Your task to perform on an android device: open a new tab in the chrome app Image 0: 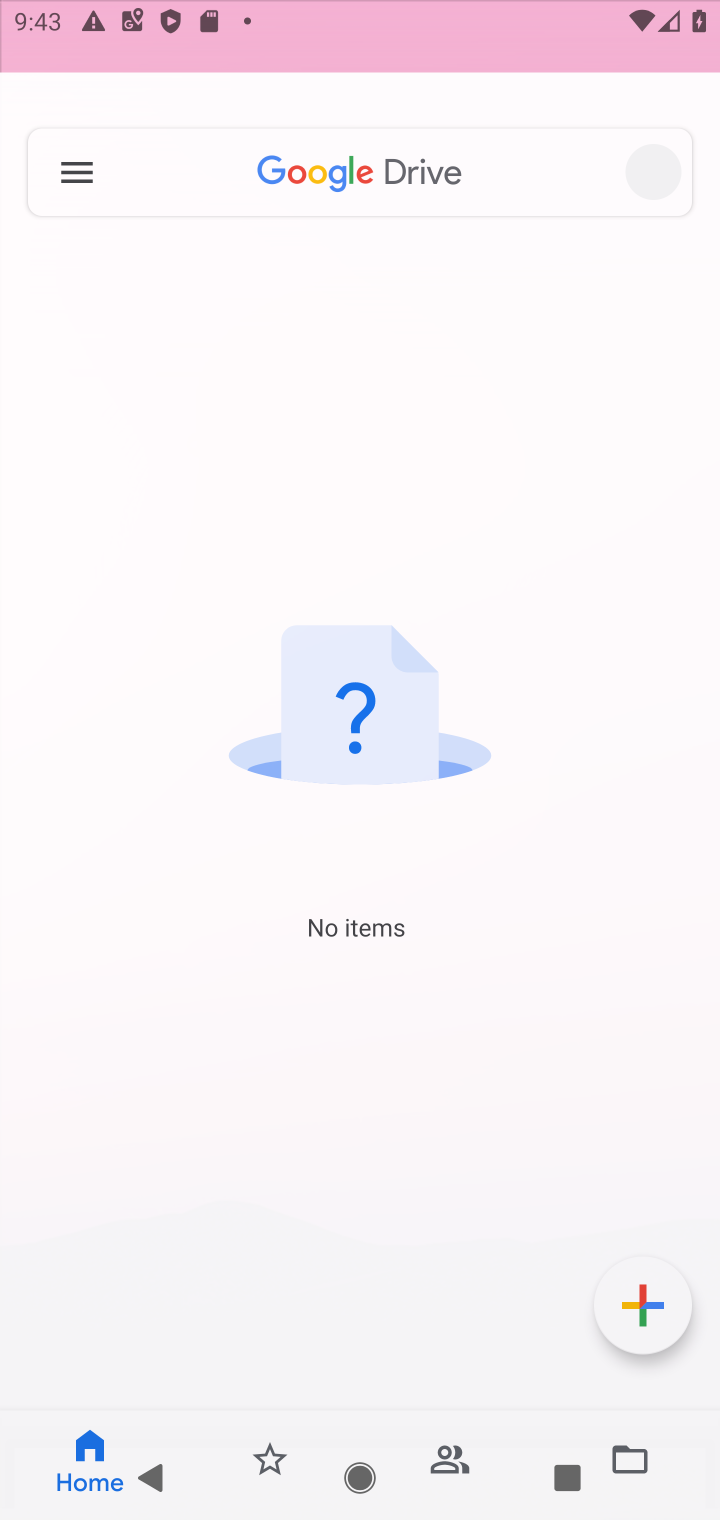
Step 0: press home button
Your task to perform on an android device: open a new tab in the chrome app Image 1: 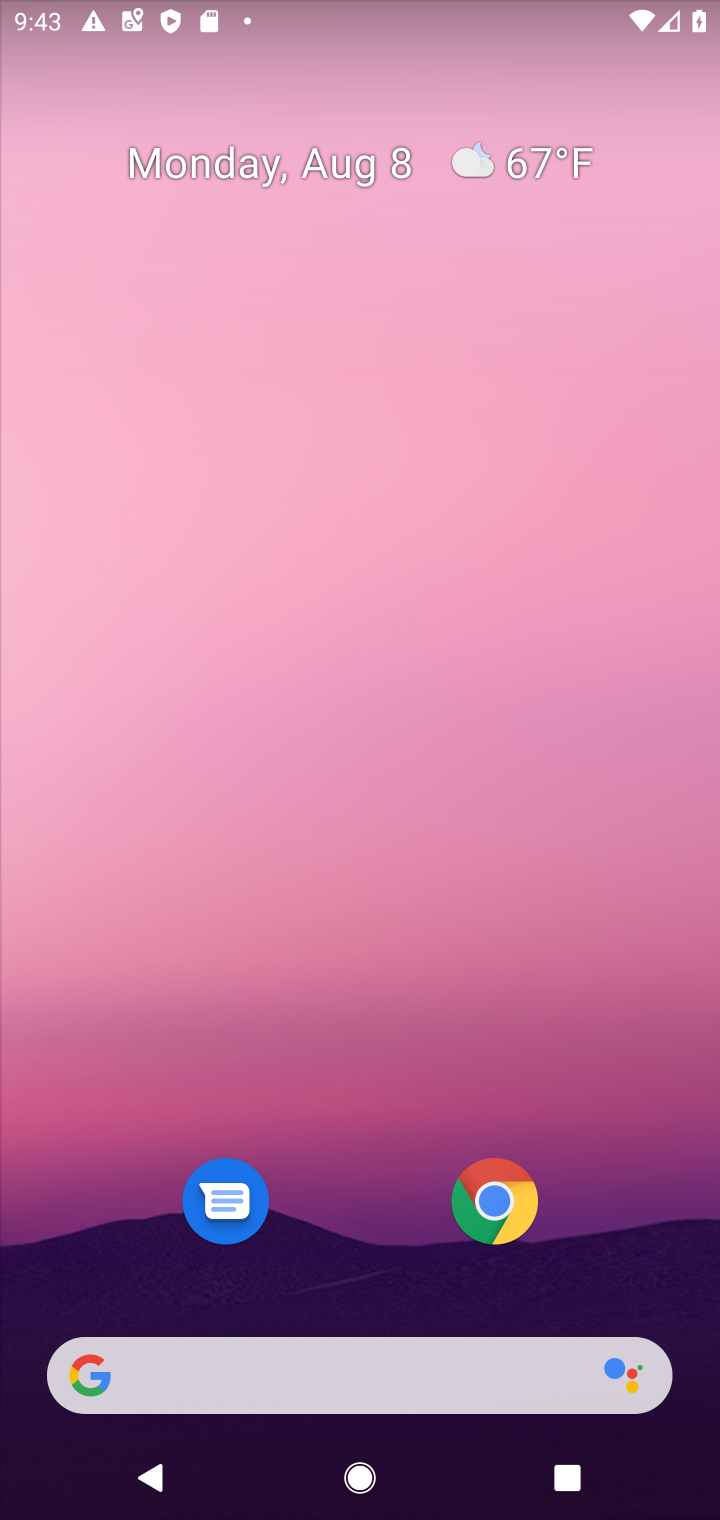
Step 1: drag from (371, 1257) to (397, 336)
Your task to perform on an android device: open a new tab in the chrome app Image 2: 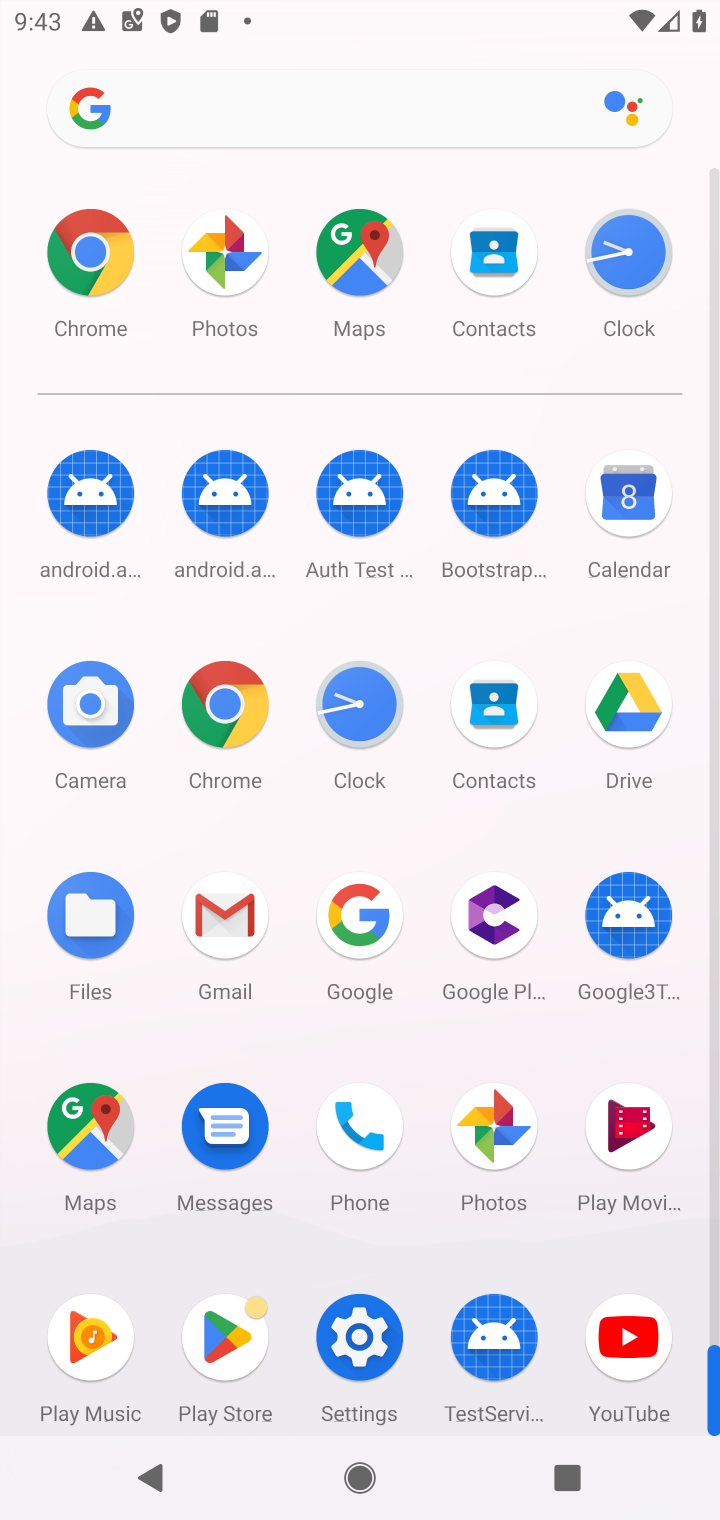
Step 2: click (222, 713)
Your task to perform on an android device: open a new tab in the chrome app Image 3: 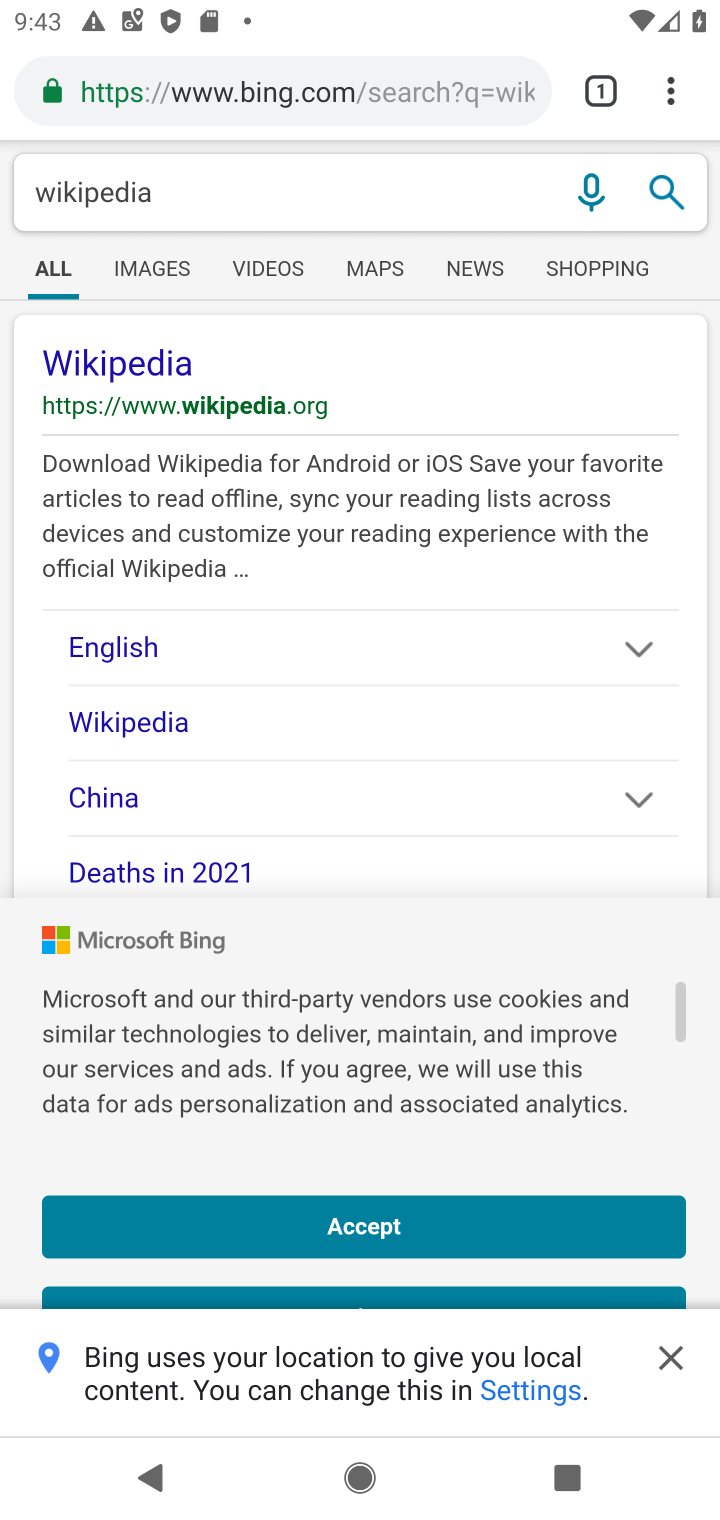
Step 3: click (668, 99)
Your task to perform on an android device: open a new tab in the chrome app Image 4: 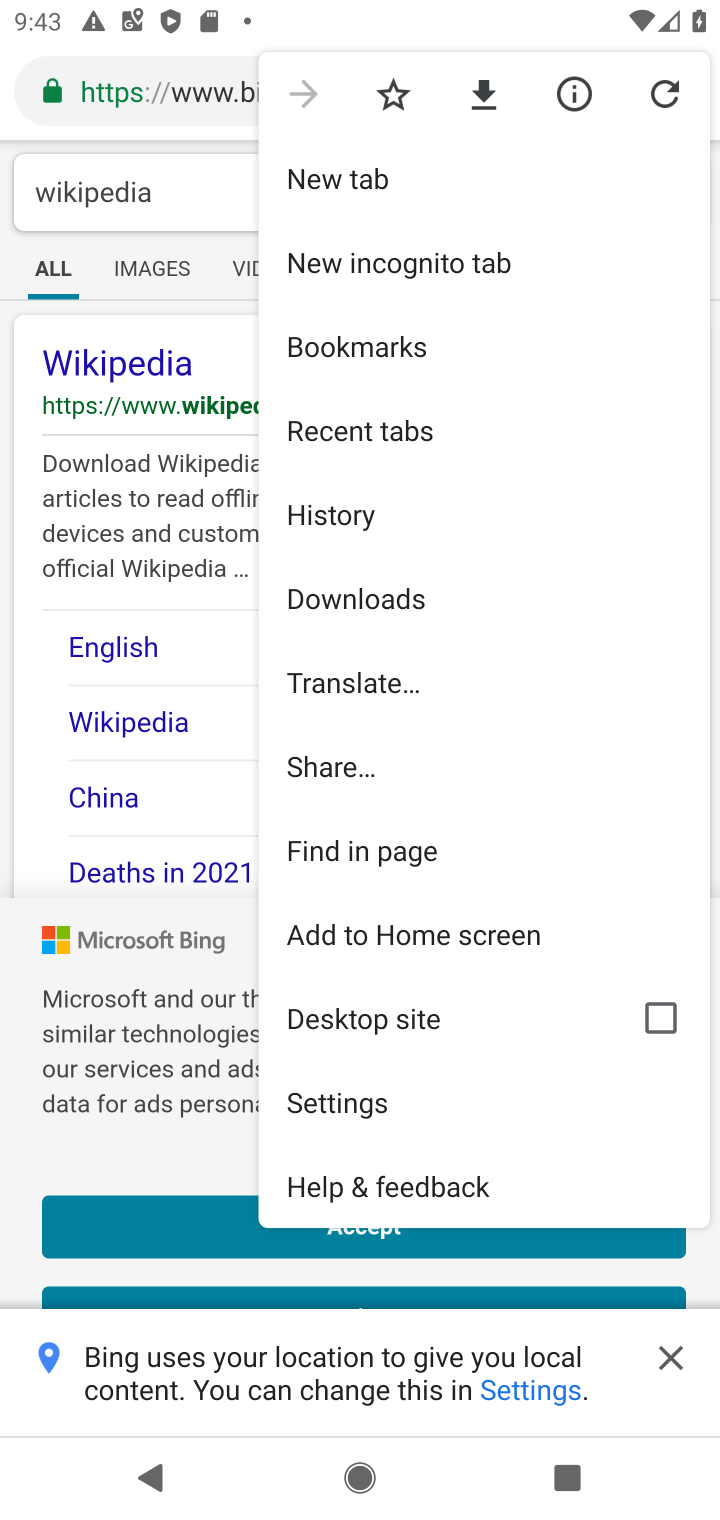
Step 4: click (375, 176)
Your task to perform on an android device: open a new tab in the chrome app Image 5: 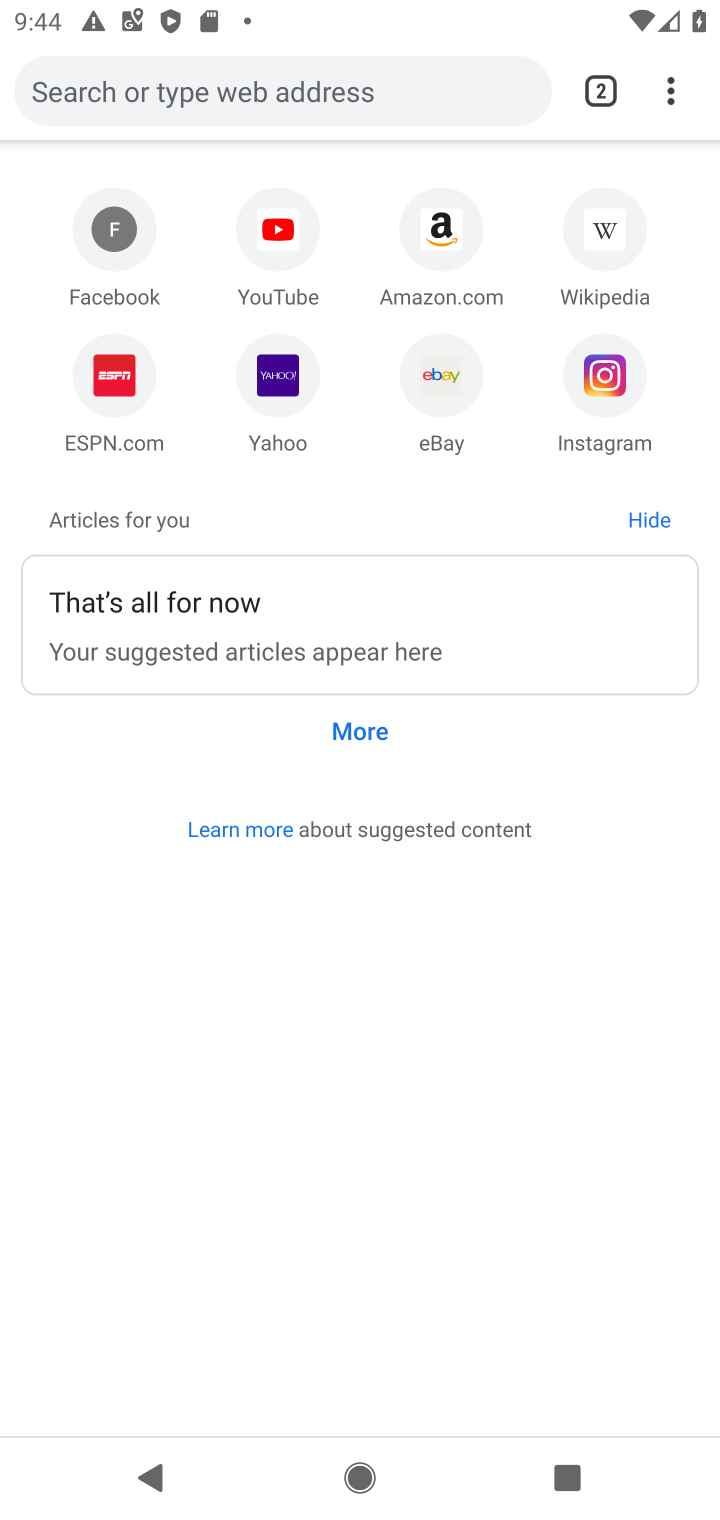
Step 5: task complete